Your task to perform on an android device: refresh tabs in the chrome app Image 0: 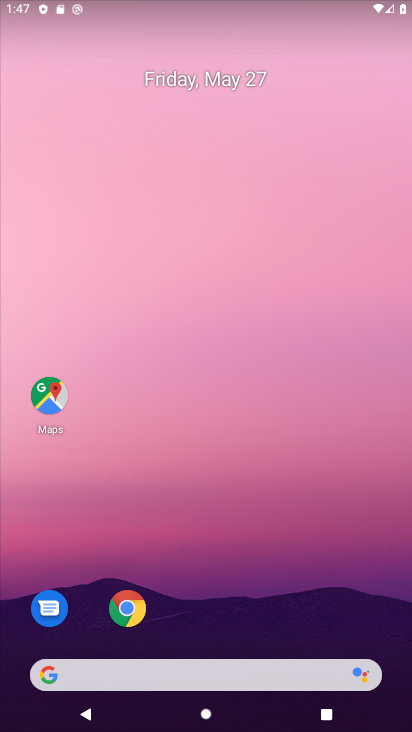
Step 0: click (128, 593)
Your task to perform on an android device: refresh tabs in the chrome app Image 1: 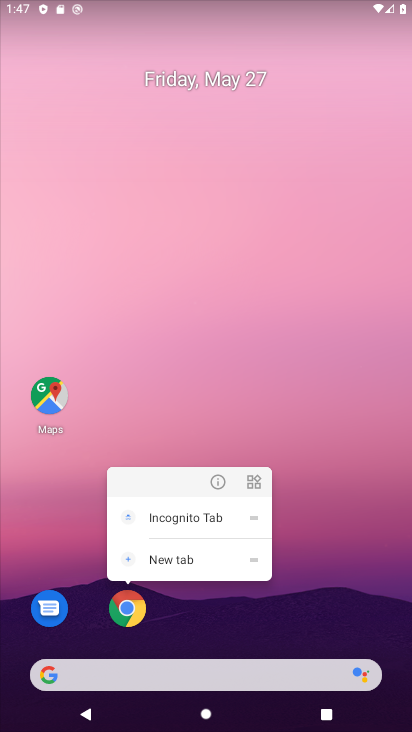
Step 1: click (127, 598)
Your task to perform on an android device: refresh tabs in the chrome app Image 2: 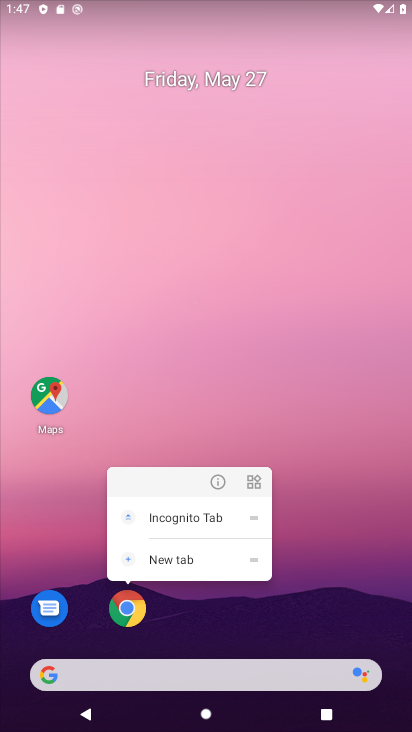
Step 2: click (127, 598)
Your task to perform on an android device: refresh tabs in the chrome app Image 3: 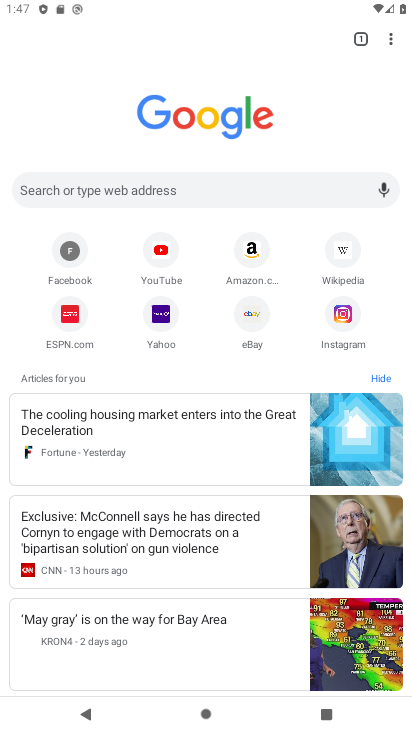
Step 3: click (389, 38)
Your task to perform on an android device: refresh tabs in the chrome app Image 4: 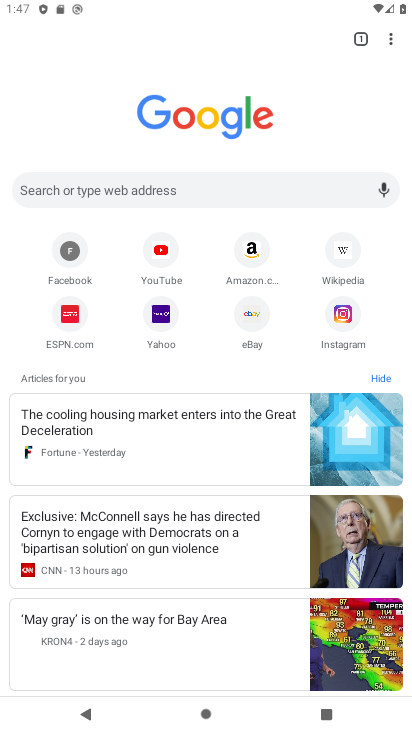
Step 4: click (391, 35)
Your task to perform on an android device: refresh tabs in the chrome app Image 5: 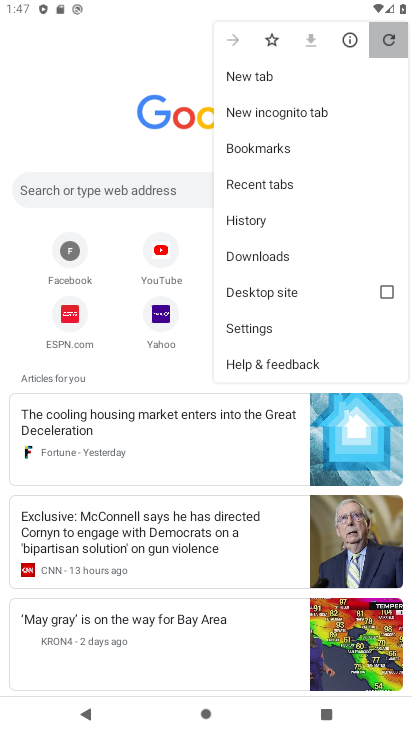
Step 5: click (395, 40)
Your task to perform on an android device: refresh tabs in the chrome app Image 6: 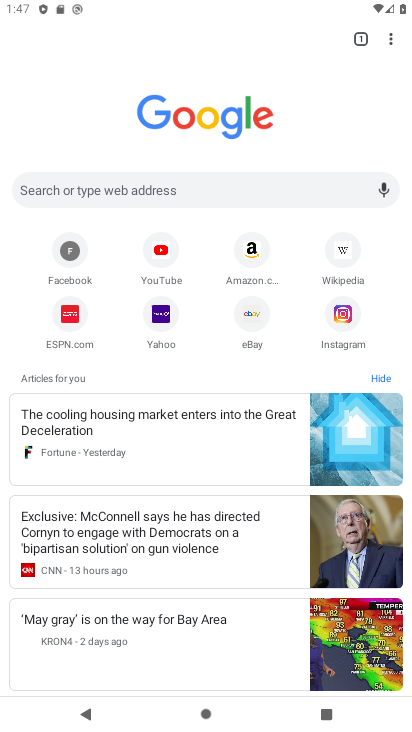
Step 6: task complete